Your task to perform on an android device: check the backup settings in the google photos Image 0: 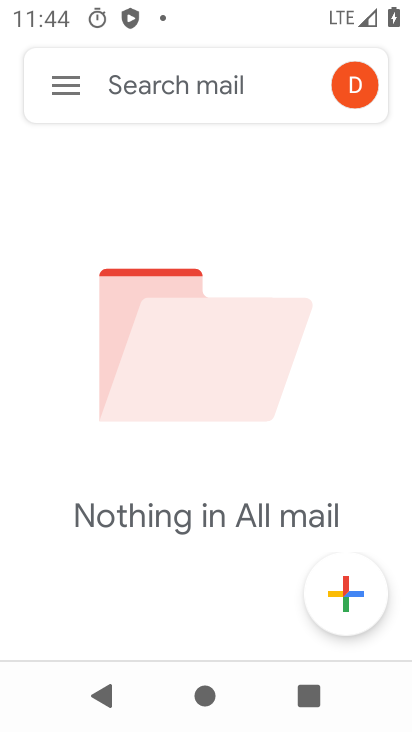
Step 0: press back button
Your task to perform on an android device: check the backup settings in the google photos Image 1: 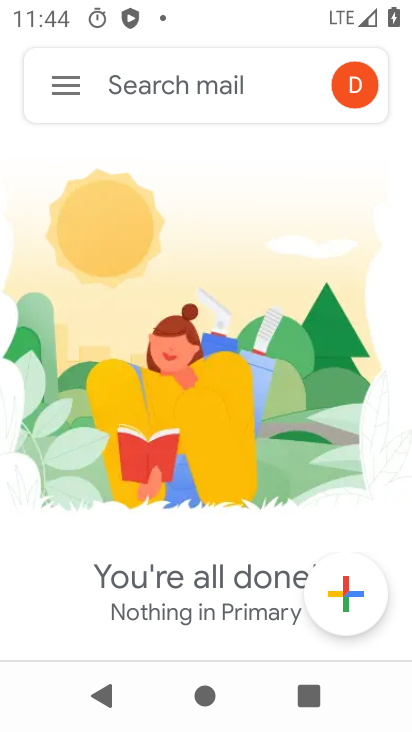
Step 1: press back button
Your task to perform on an android device: check the backup settings in the google photos Image 2: 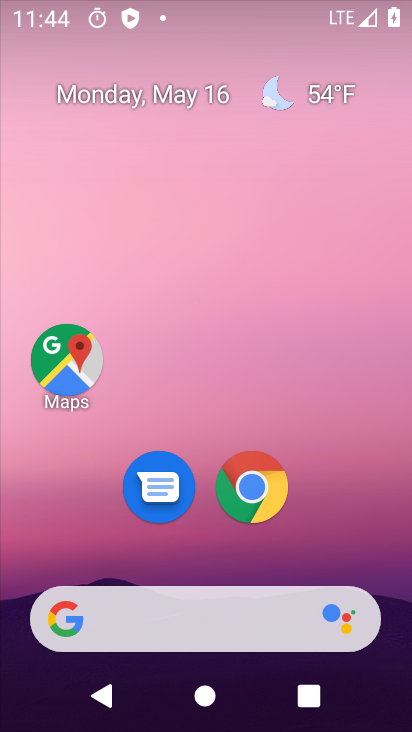
Step 2: drag from (243, 549) to (300, 42)
Your task to perform on an android device: check the backup settings in the google photos Image 3: 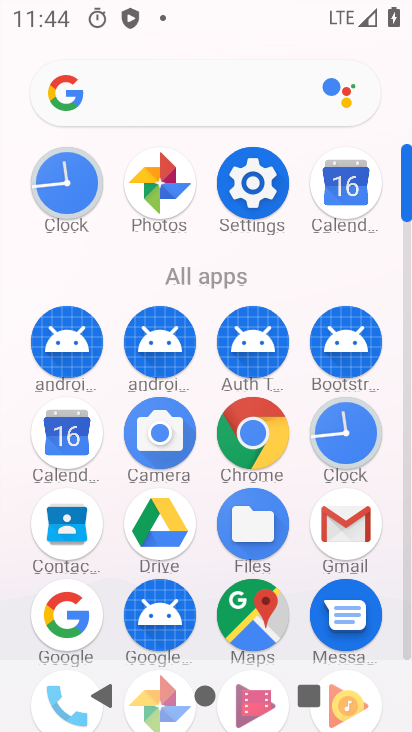
Step 3: drag from (191, 598) to (252, 212)
Your task to perform on an android device: check the backup settings in the google photos Image 4: 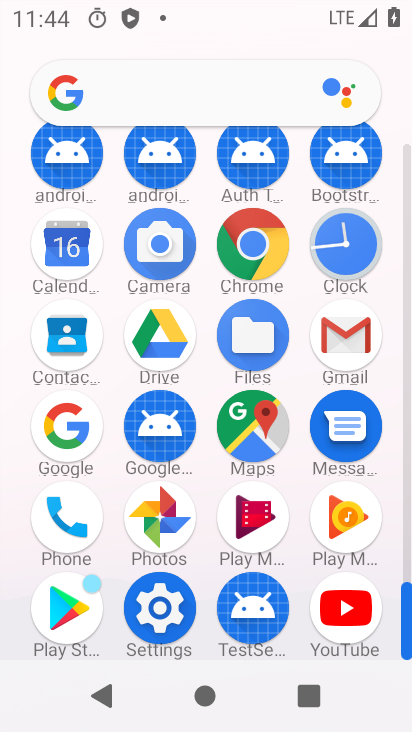
Step 4: click (153, 527)
Your task to perform on an android device: check the backup settings in the google photos Image 5: 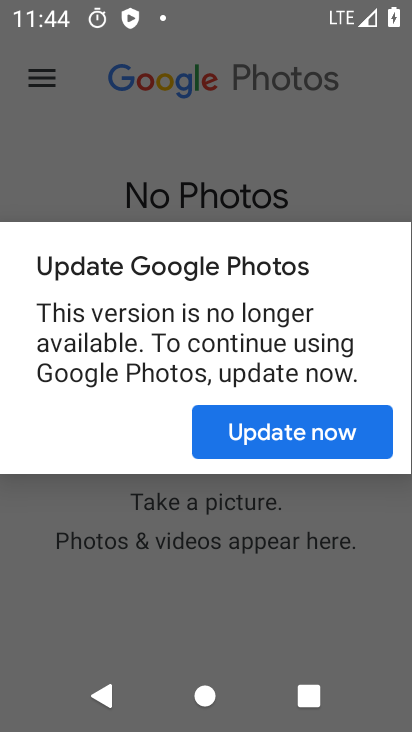
Step 5: click (308, 442)
Your task to perform on an android device: check the backup settings in the google photos Image 6: 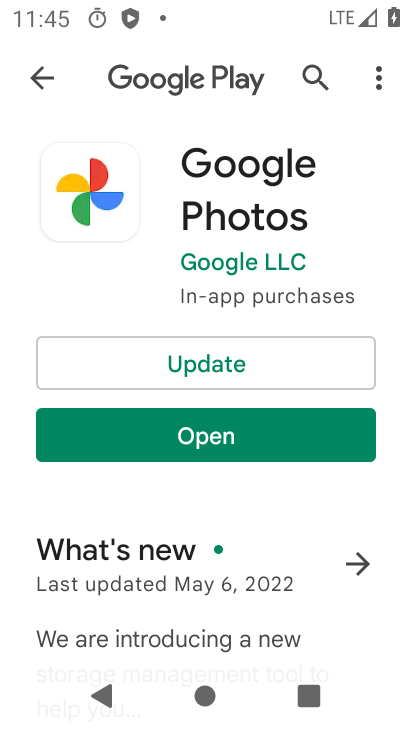
Step 6: click (205, 443)
Your task to perform on an android device: check the backup settings in the google photos Image 7: 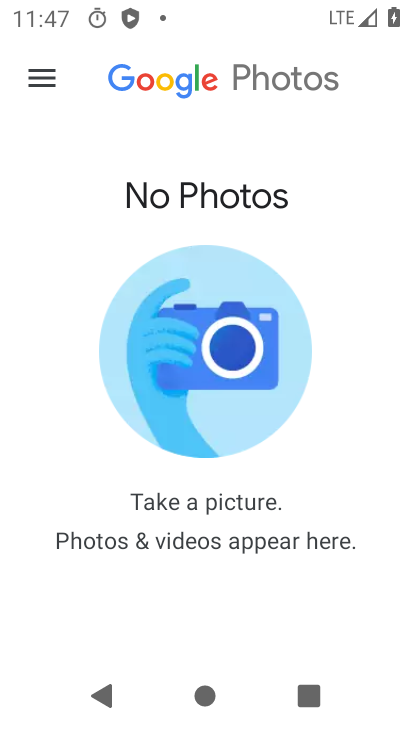
Step 7: click (47, 78)
Your task to perform on an android device: check the backup settings in the google photos Image 8: 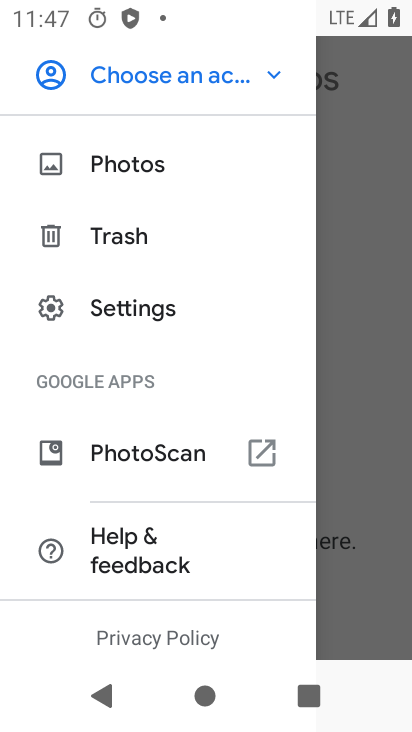
Step 8: click (117, 311)
Your task to perform on an android device: check the backup settings in the google photos Image 9: 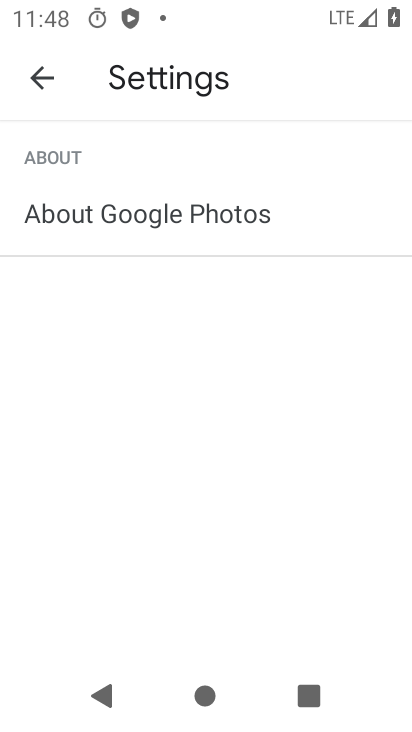
Step 9: task complete